Your task to perform on an android device: Open settings Image 0: 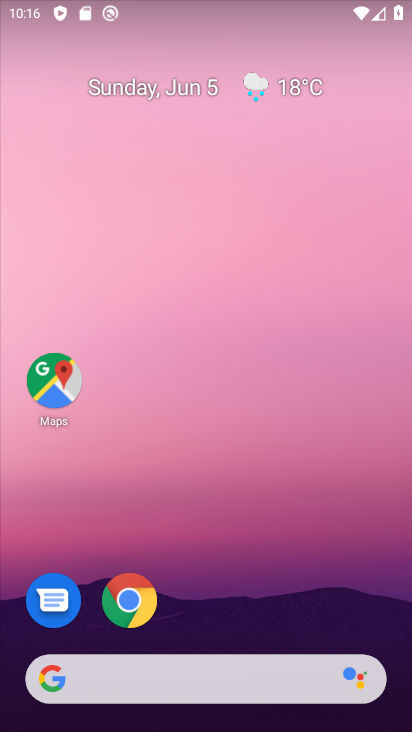
Step 0: drag from (226, 614) to (219, 14)
Your task to perform on an android device: Open settings Image 1: 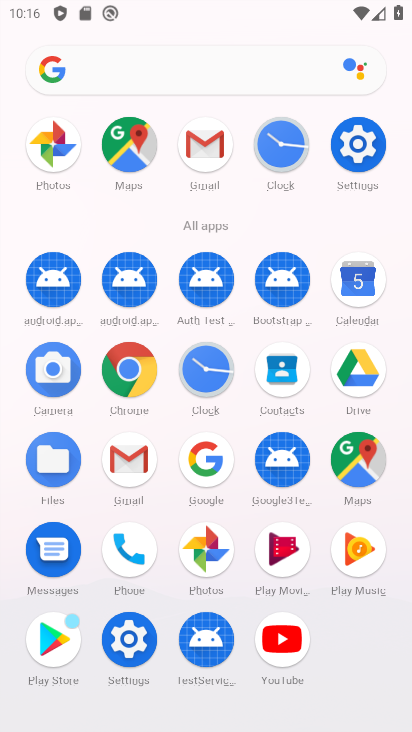
Step 1: click (362, 139)
Your task to perform on an android device: Open settings Image 2: 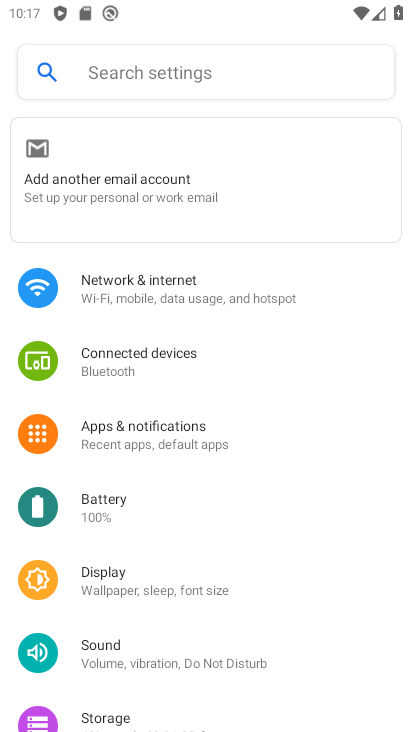
Step 2: task complete